Your task to perform on an android device: clear history in the chrome app Image 0: 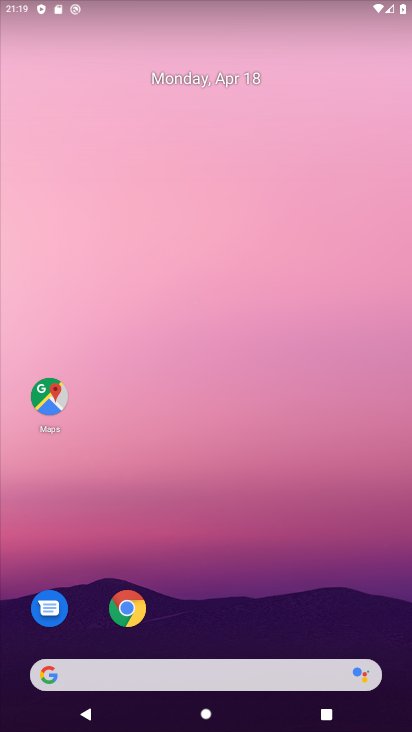
Step 0: click (128, 606)
Your task to perform on an android device: clear history in the chrome app Image 1: 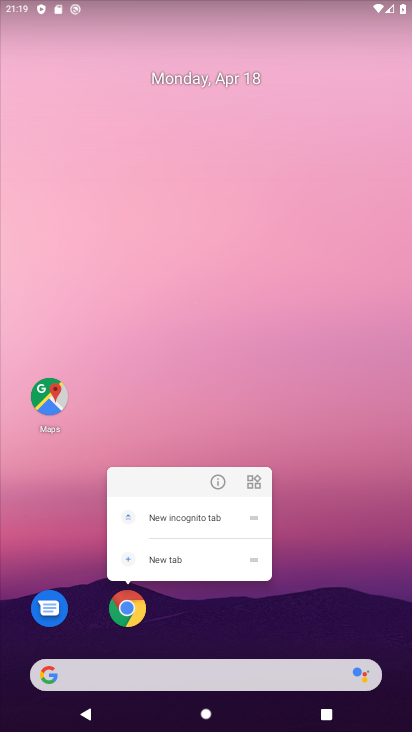
Step 1: click (128, 606)
Your task to perform on an android device: clear history in the chrome app Image 2: 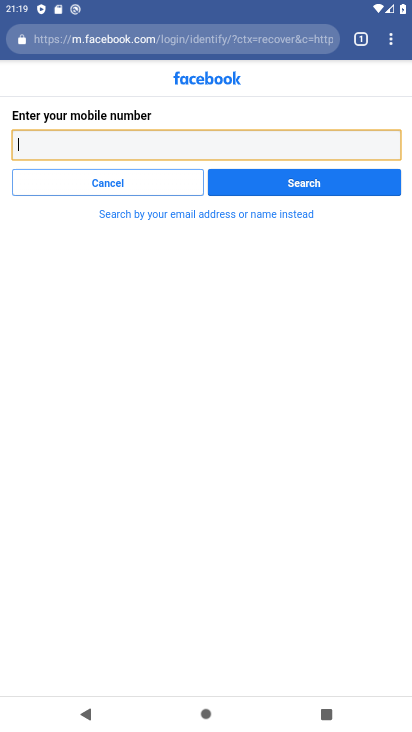
Step 2: click (390, 37)
Your task to perform on an android device: clear history in the chrome app Image 3: 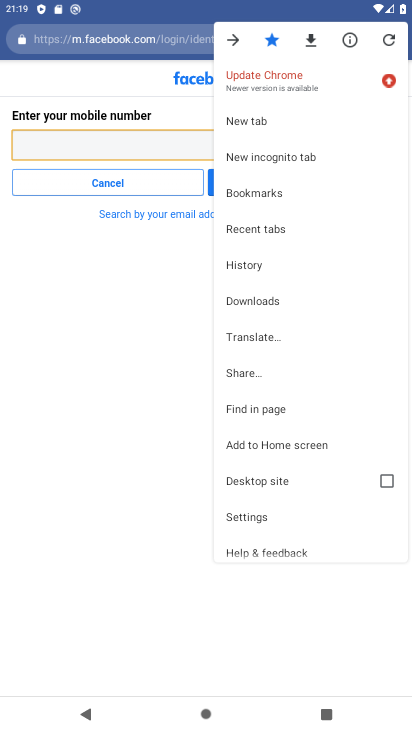
Step 3: click (246, 512)
Your task to perform on an android device: clear history in the chrome app Image 4: 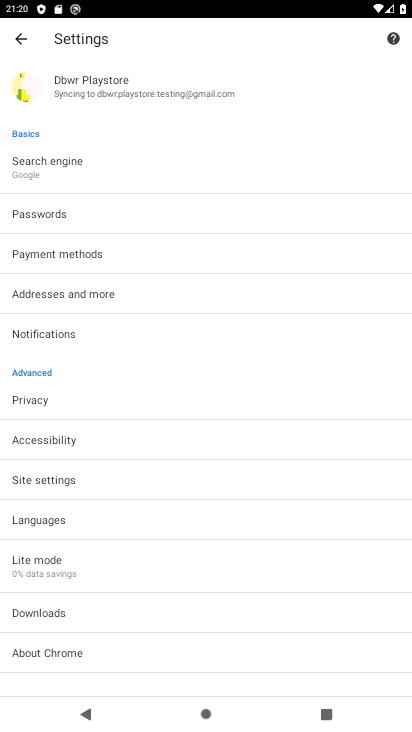
Step 4: click (57, 402)
Your task to perform on an android device: clear history in the chrome app Image 5: 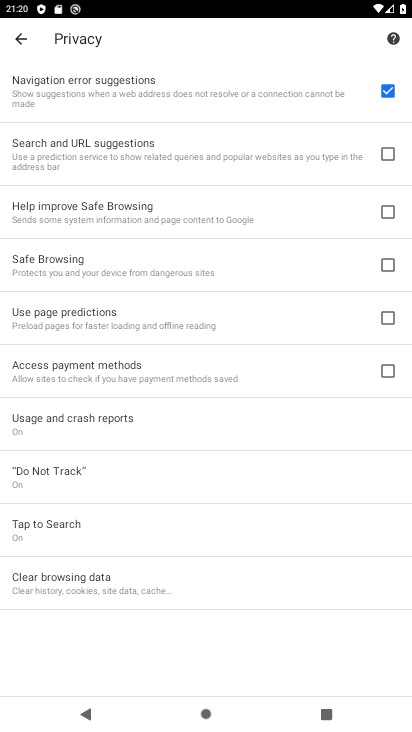
Step 5: click (121, 595)
Your task to perform on an android device: clear history in the chrome app Image 6: 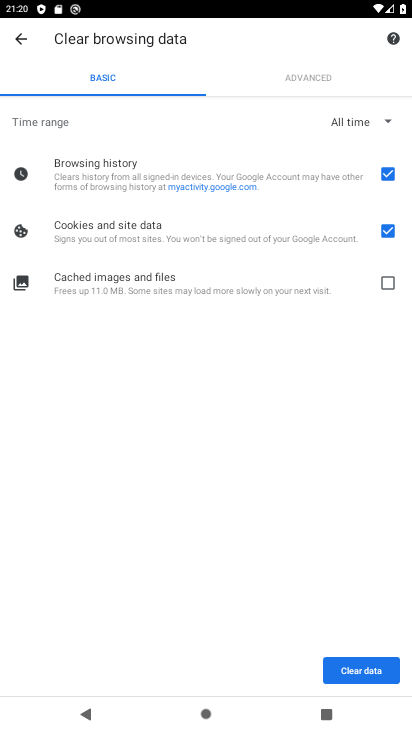
Step 6: click (391, 231)
Your task to perform on an android device: clear history in the chrome app Image 7: 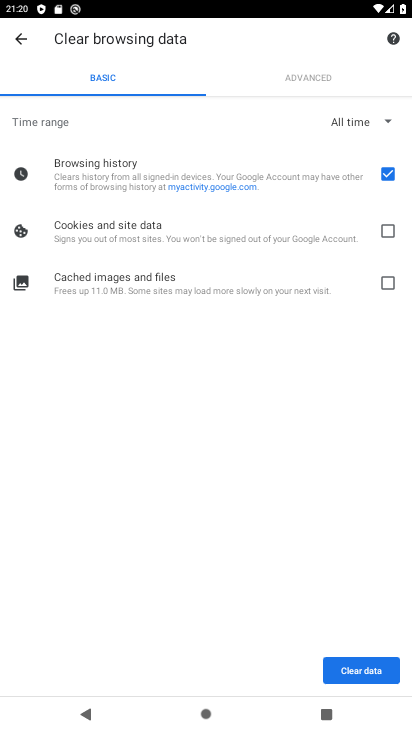
Step 7: click (339, 670)
Your task to perform on an android device: clear history in the chrome app Image 8: 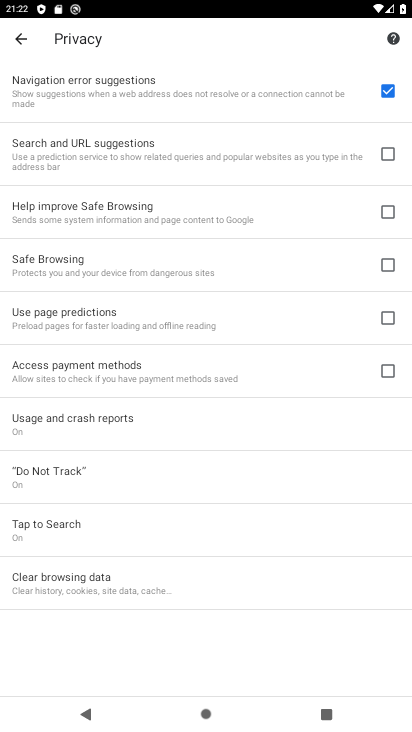
Step 8: task complete